Your task to perform on an android device: turn off notifications in google photos Image 0: 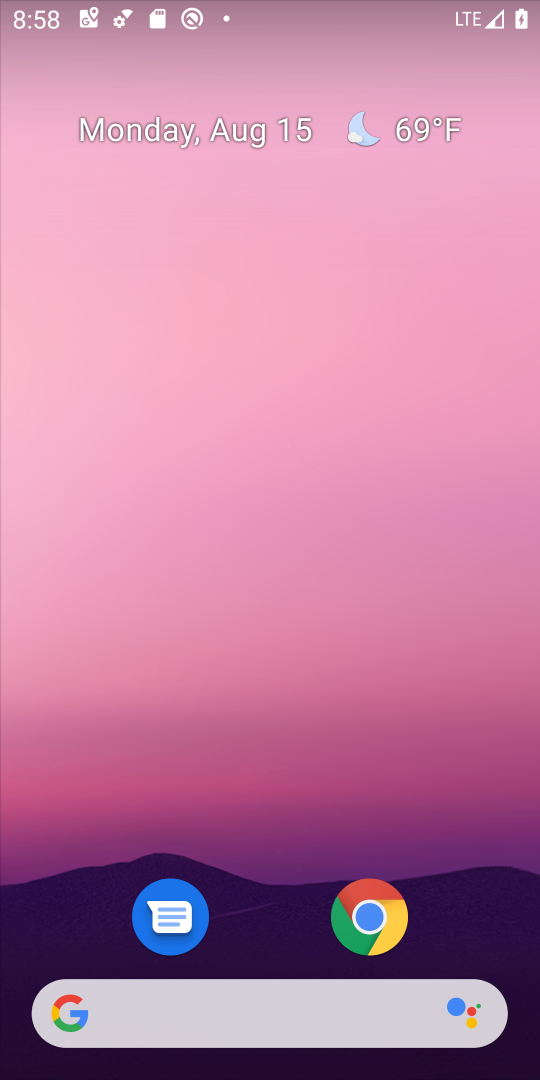
Step 0: drag from (277, 886) to (320, 8)
Your task to perform on an android device: turn off notifications in google photos Image 1: 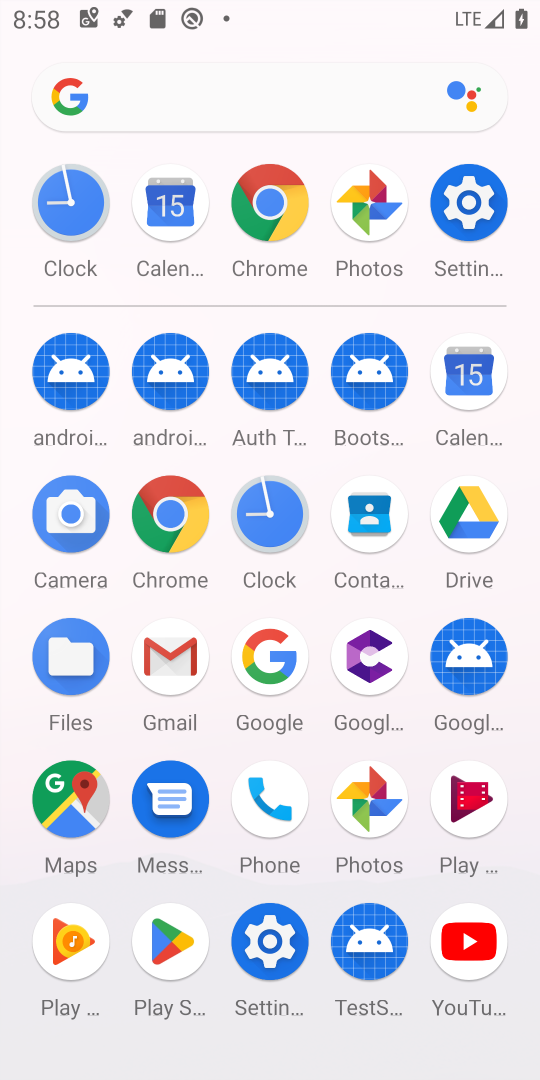
Step 1: click (357, 198)
Your task to perform on an android device: turn off notifications in google photos Image 2: 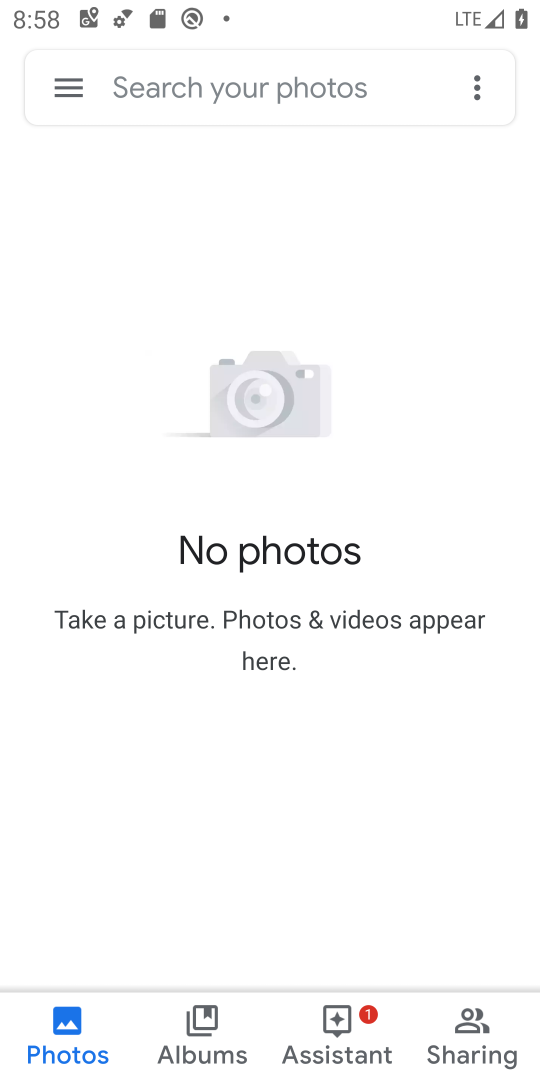
Step 2: click (73, 88)
Your task to perform on an android device: turn off notifications in google photos Image 3: 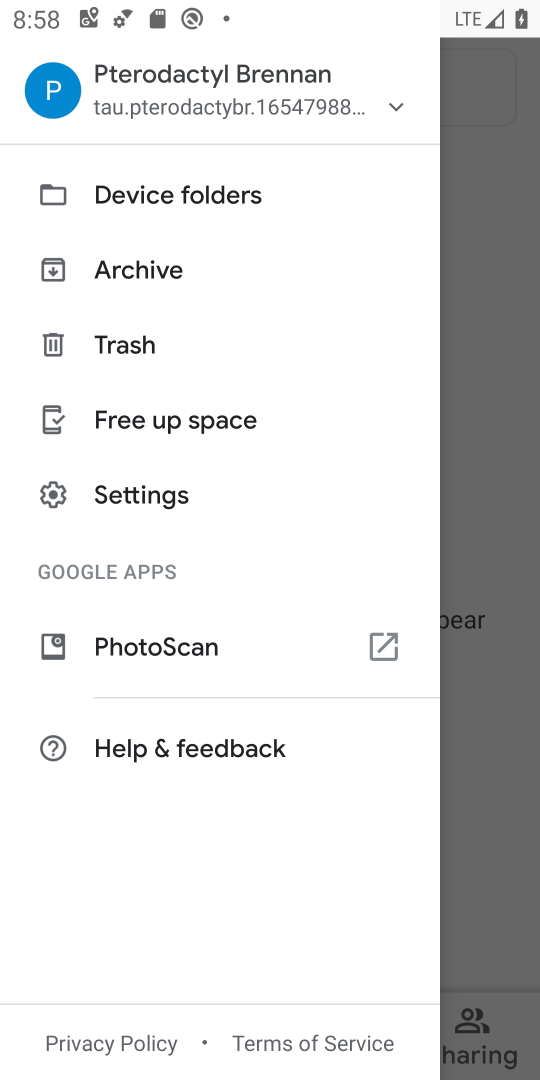
Step 3: click (154, 488)
Your task to perform on an android device: turn off notifications in google photos Image 4: 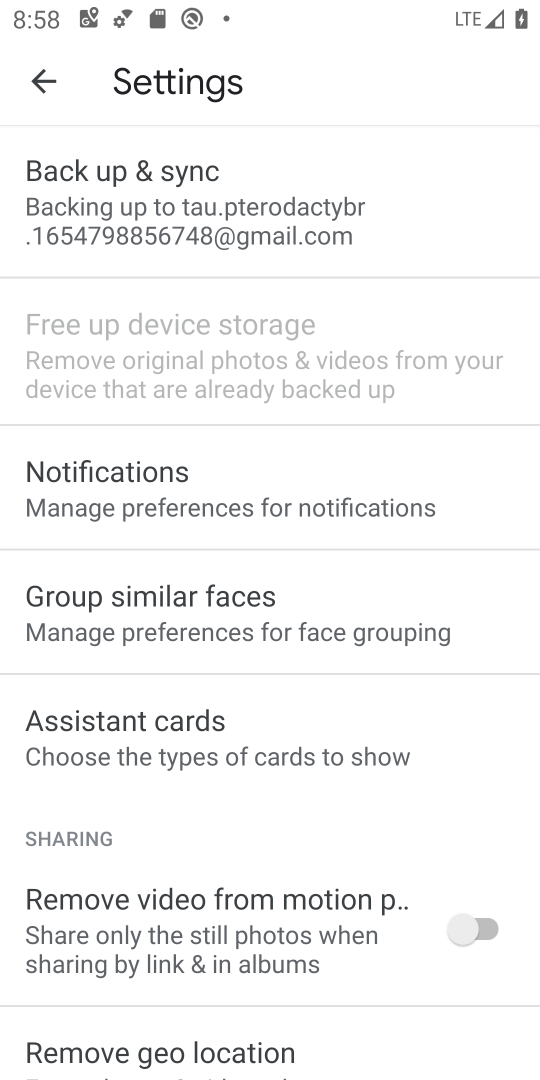
Step 4: click (154, 486)
Your task to perform on an android device: turn off notifications in google photos Image 5: 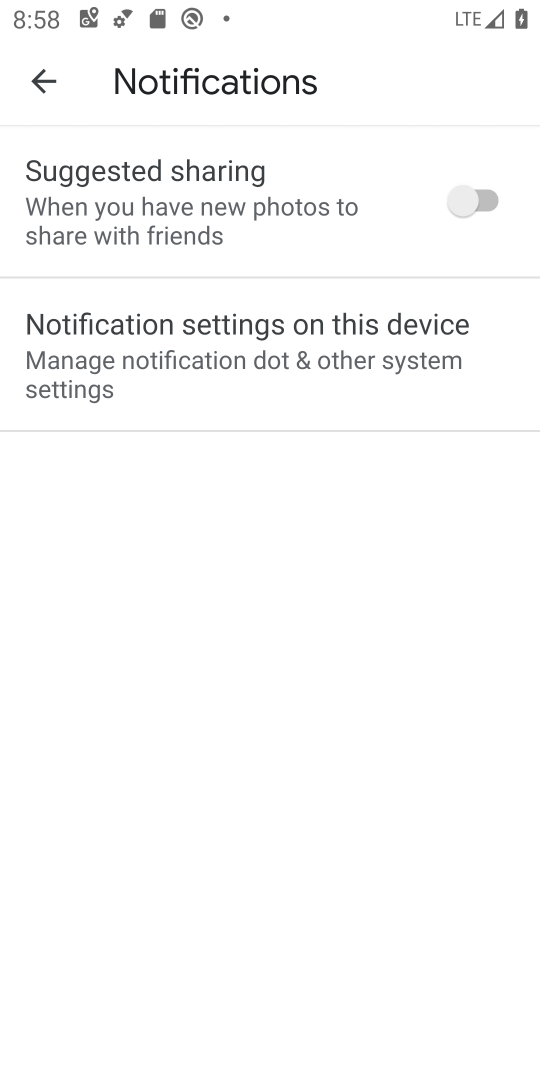
Step 5: click (250, 350)
Your task to perform on an android device: turn off notifications in google photos Image 6: 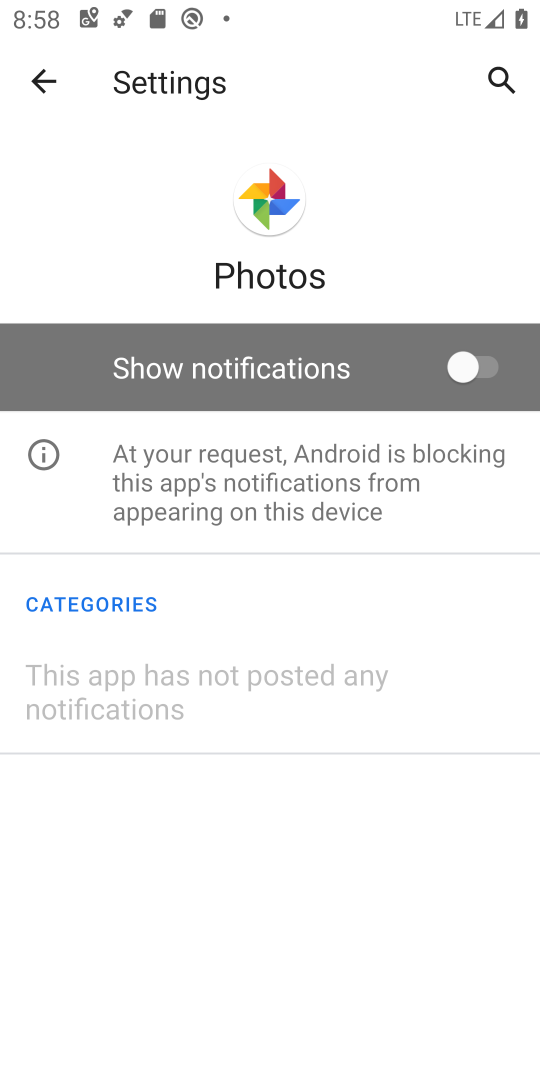
Step 6: task complete